Your task to perform on an android device: toggle location history Image 0: 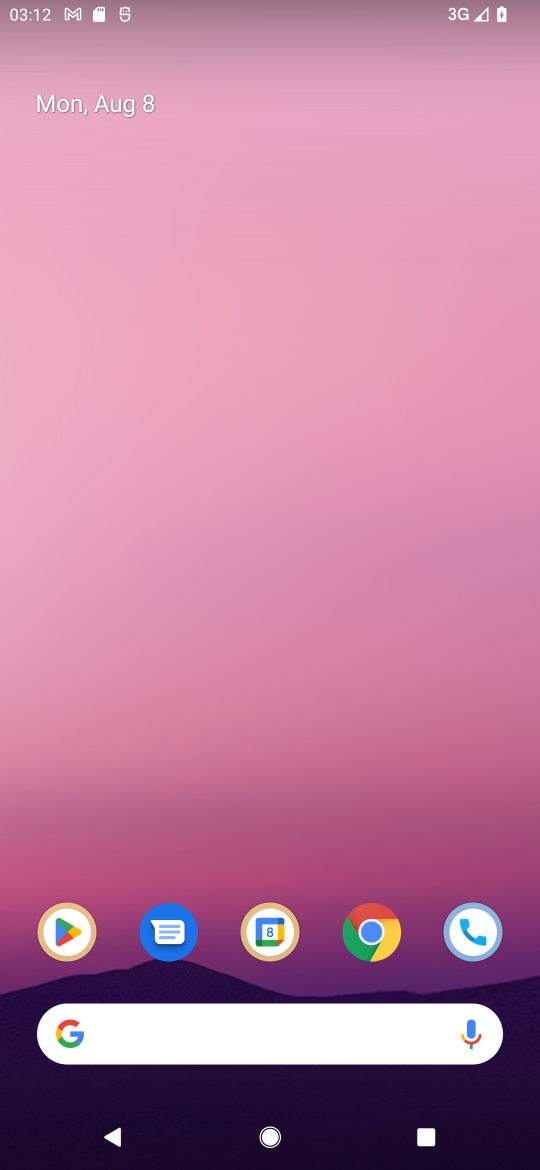
Step 0: drag from (159, 1006) to (388, 3)
Your task to perform on an android device: toggle location history Image 1: 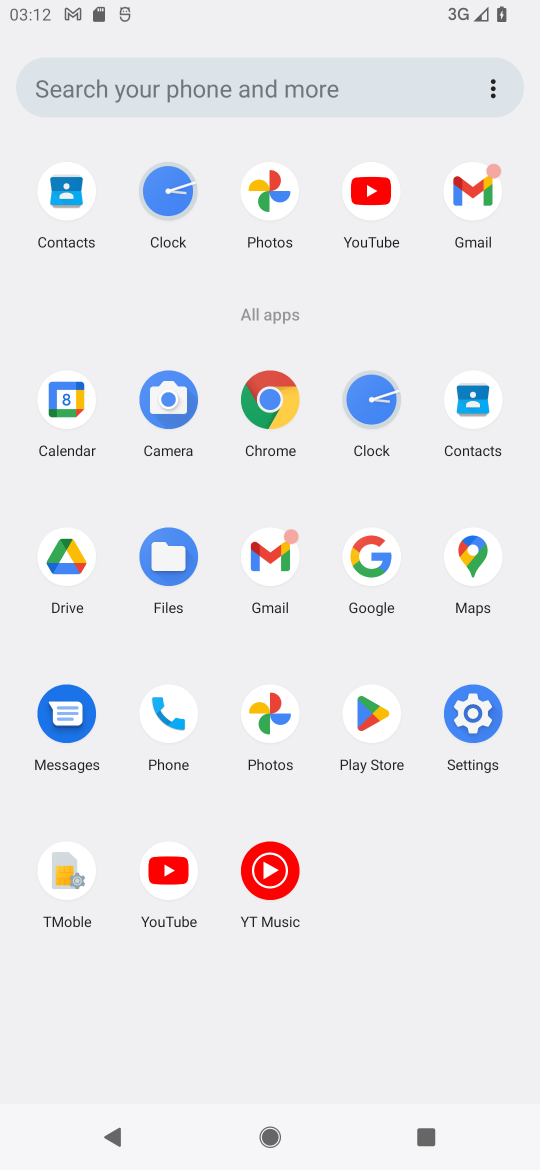
Step 1: click (479, 720)
Your task to perform on an android device: toggle location history Image 2: 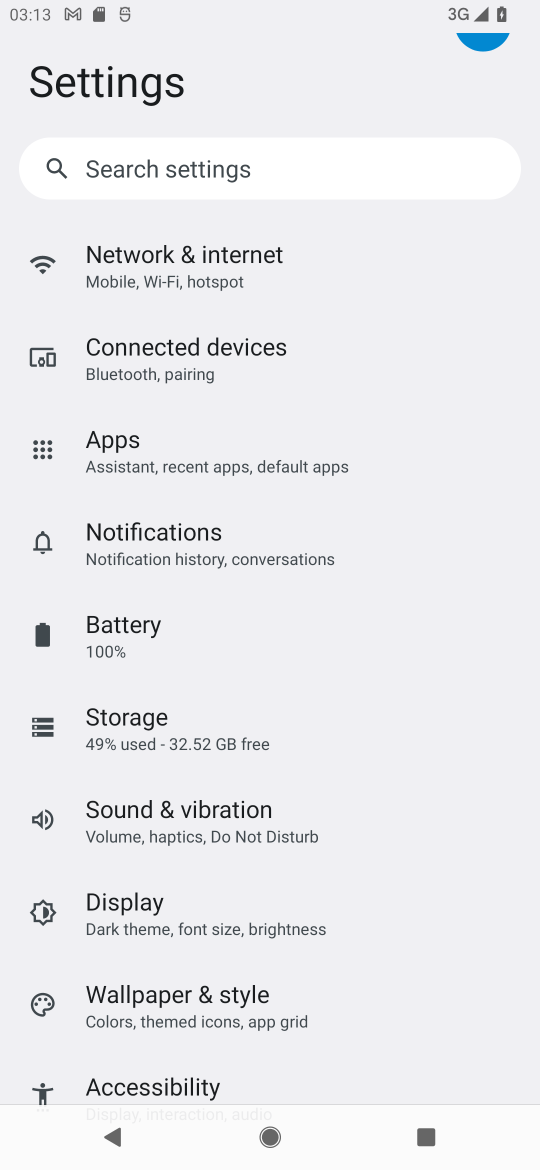
Step 2: drag from (263, 976) to (130, 141)
Your task to perform on an android device: toggle location history Image 3: 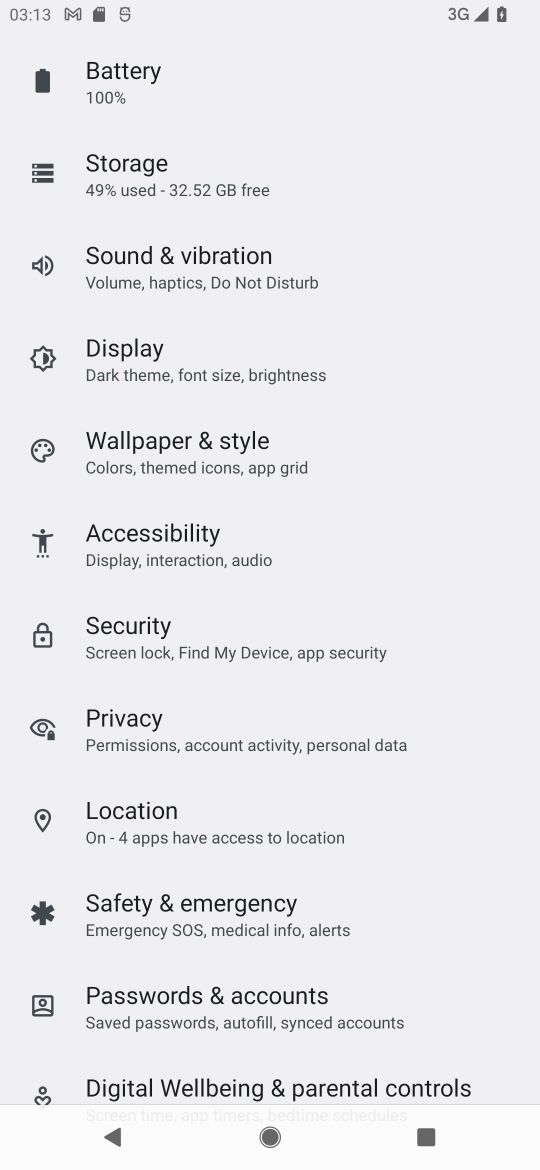
Step 3: click (206, 817)
Your task to perform on an android device: toggle location history Image 4: 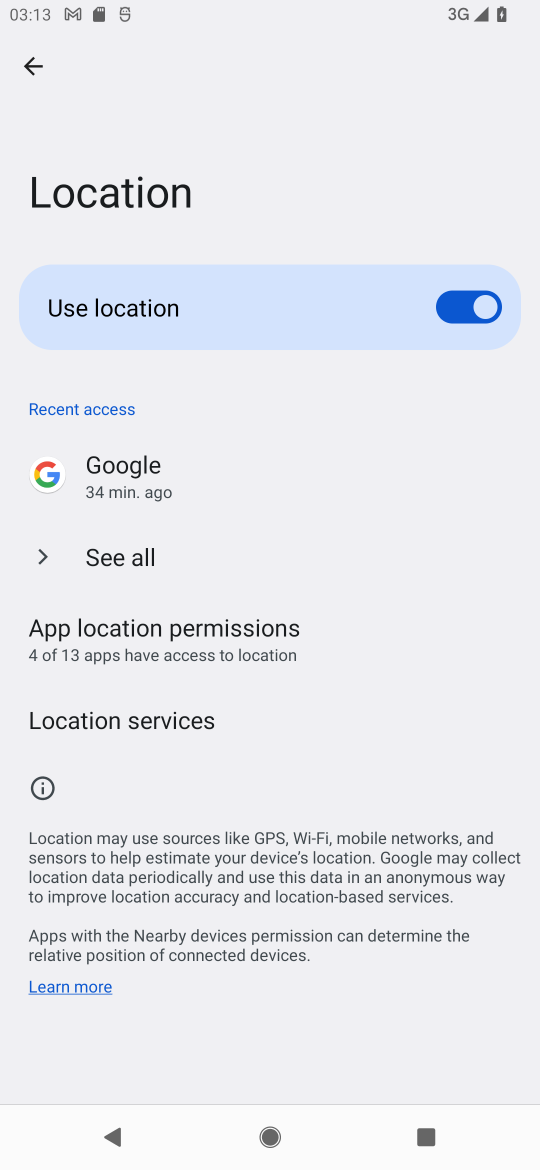
Step 4: task complete